Your task to perform on an android device: Go to settings Image 0: 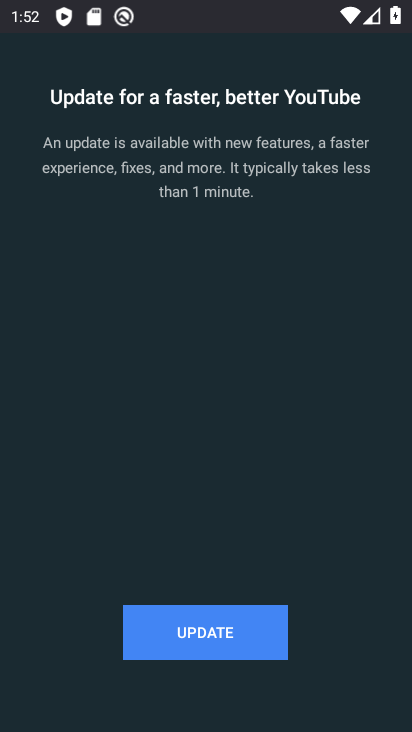
Step 0: press home button
Your task to perform on an android device: Go to settings Image 1: 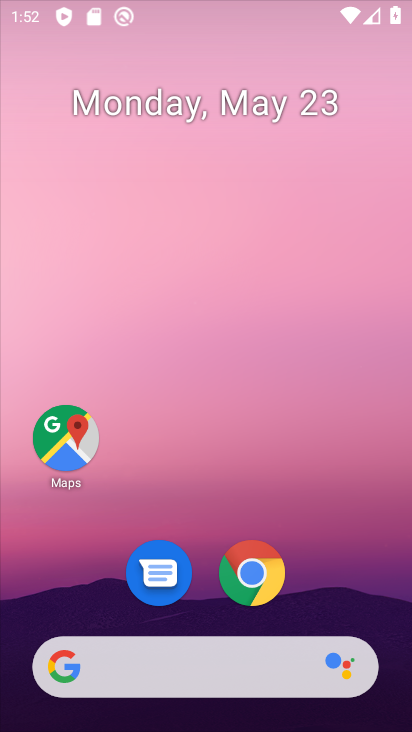
Step 1: drag from (329, 498) to (288, 122)
Your task to perform on an android device: Go to settings Image 2: 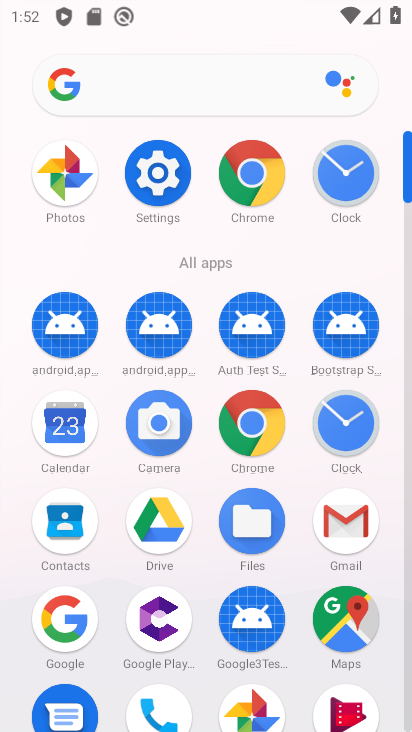
Step 2: click (161, 183)
Your task to perform on an android device: Go to settings Image 3: 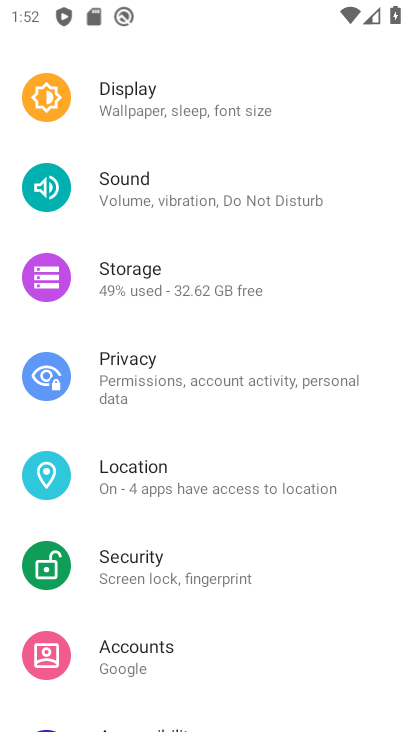
Step 3: task complete